Your task to perform on an android device: delete browsing data in the chrome app Image 0: 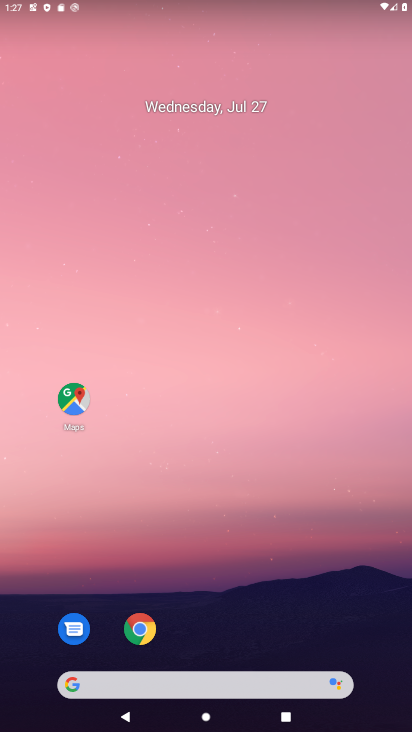
Step 0: click (144, 629)
Your task to perform on an android device: delete browsing data in the chrome app Image 1: 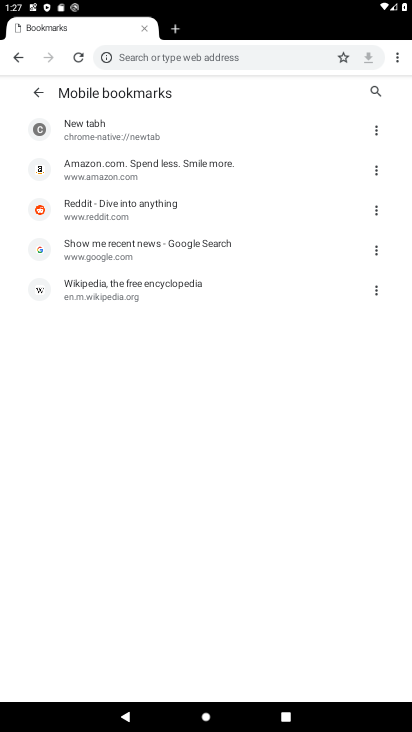
Step 1: click (399, 57)
Your task to perform on an android device: delete browsing data in the chrome app Image 2: 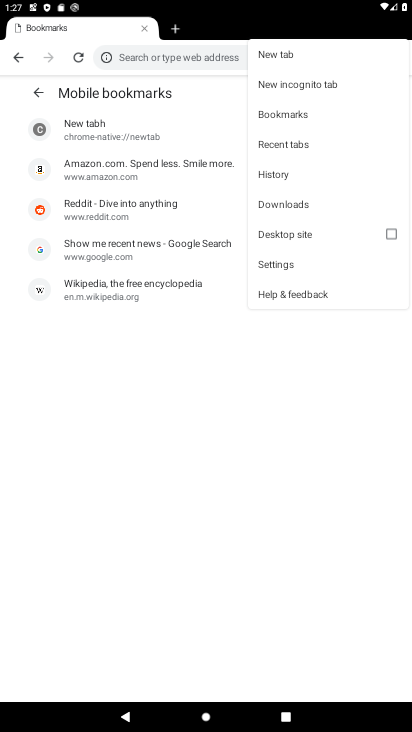
Step 2: click (318, 177)
Your task to perform on an android device: delete browsing data in the chrome app Image 3: 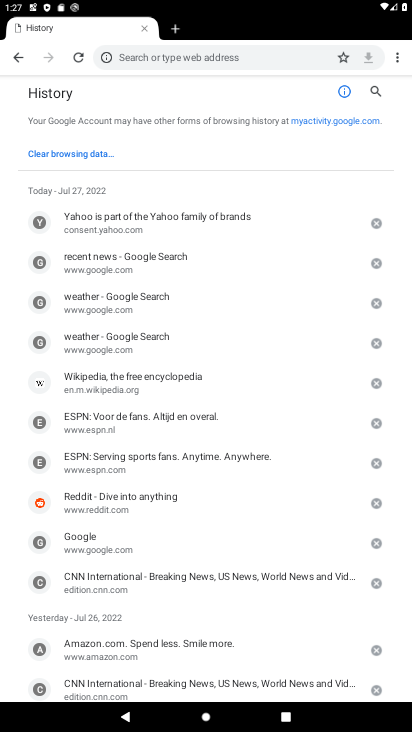
Step 3: click (77, 156)
Your task to perform on an android device: delete browsing data in the chrome app Image 4: 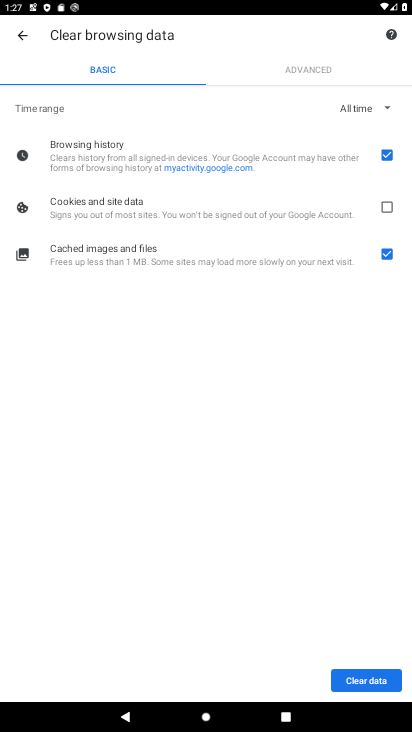
Step 4: click (387, 205)
Your task to perform on an android device: delete browsing data in the chrome app Image 5: 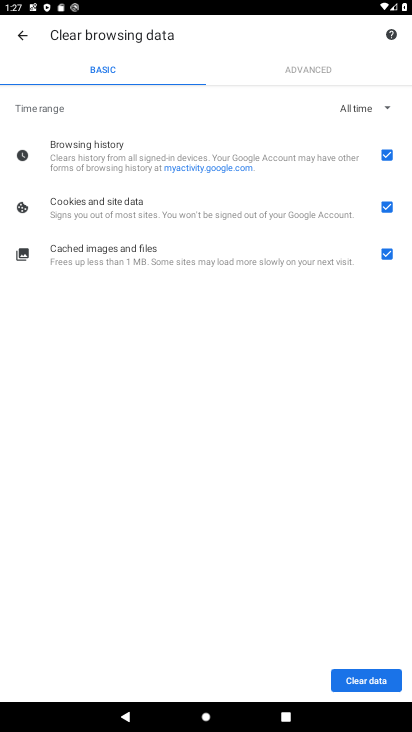
Step 5: click (369, 680)
Your task to perform on an android device: delete browsing data in the chrome app Image 6: 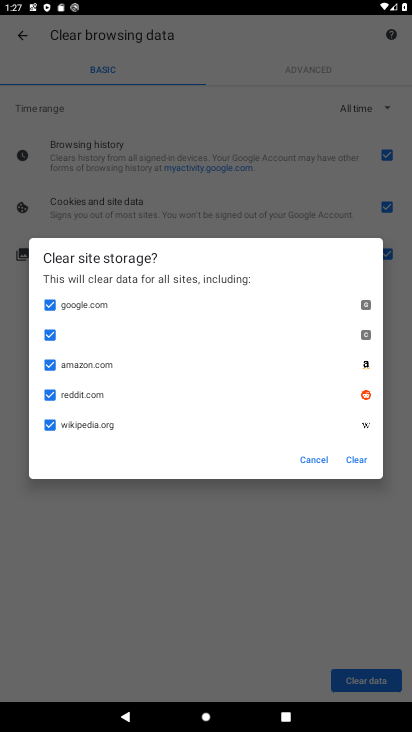
Step 6: click (354, 452)
Your task to perform on an android device: delete browsing data in the chrome app Image 7: 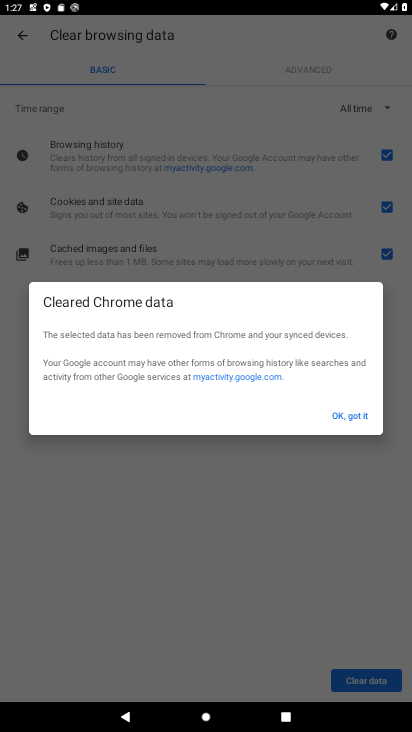
Step 7: click (360, 425)
Your task to perform on an android device: delete browsing data in the chrome app Image 8: 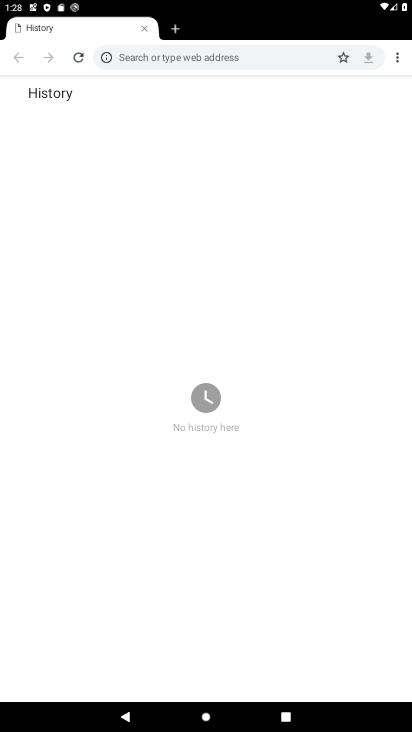
Step 8: task complete